Your task to perform on an android device: Open Chrome and go to settings Image 0: 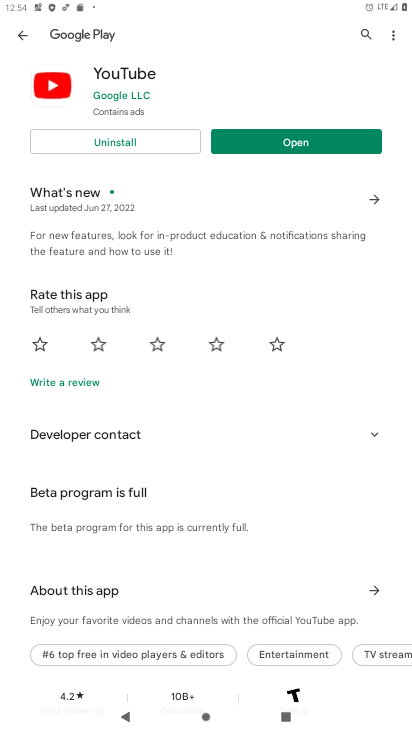
Step 0: press home button
Your task to perform on an android device: Open Chrome and go to settings Image 1: 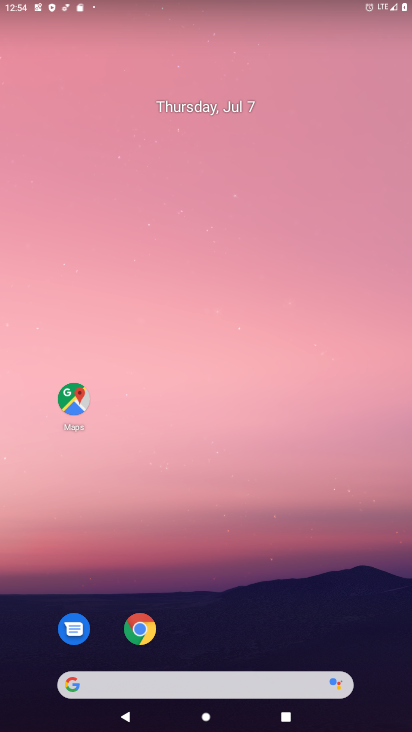
Step 1: click (141, 629)
Your task to perform on an android device: Open Chrome and go to settings Image 2: 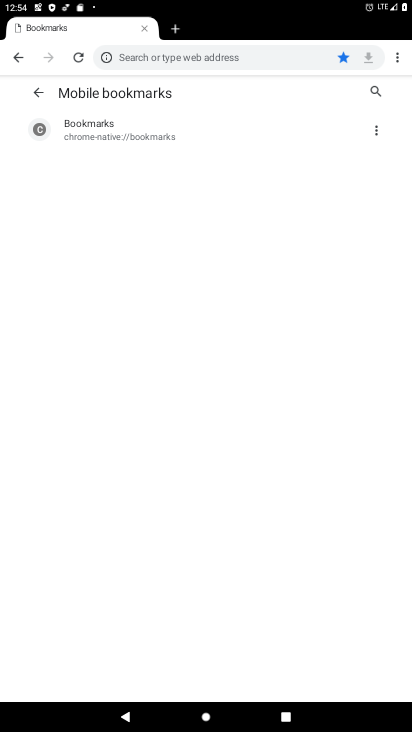
Step 2: click (398, 59)
Your task to perform on an android device: Open Chrome and go to settings Image 3: 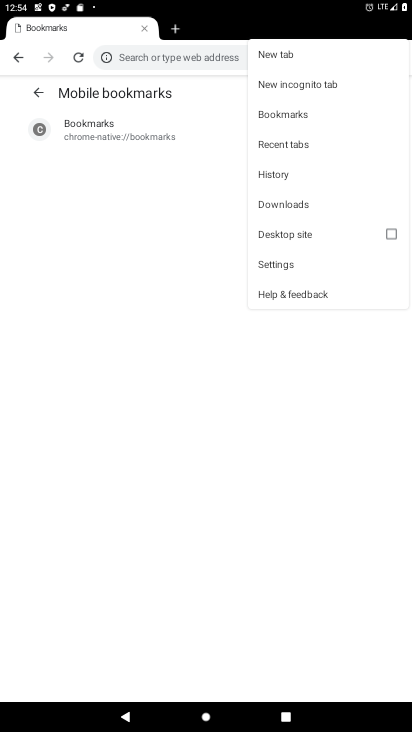
Step 3: click (286, 262)
Your task to perform on an android device: Open Chrome and go to settings Image 4: 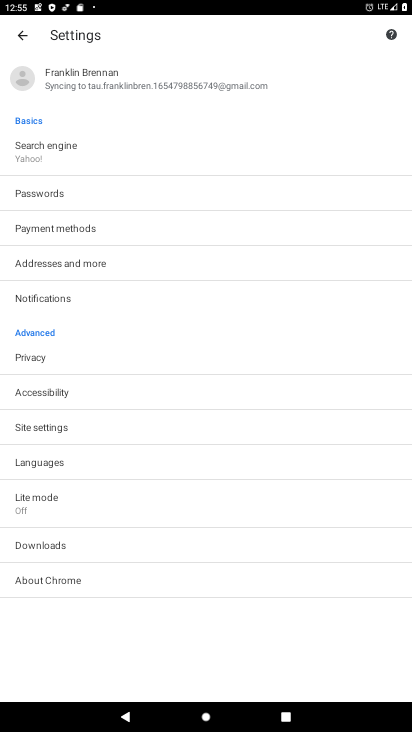
Step 4: task complete